Your task to perform on an android device: change keyboard looks Image 0: 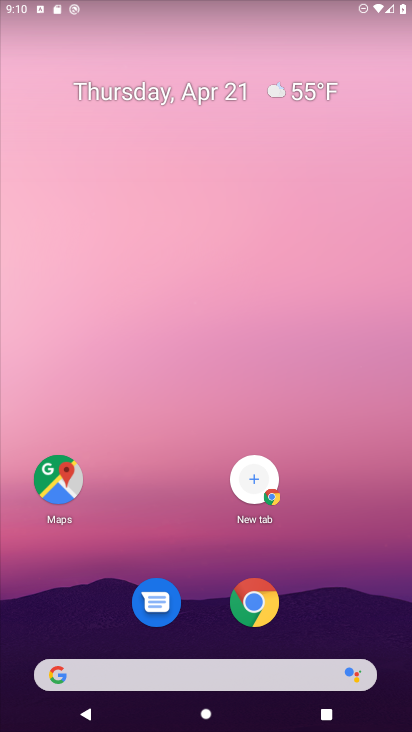
Step 0: drag from (197, 631) to (131, 223)
Your task to perform on an android device: change keyboard looks Image 1: 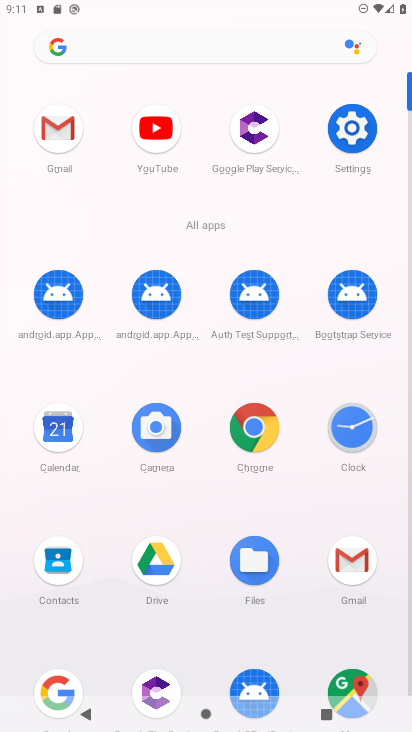
Step 1: click (381, 136)
Your task to perform on an android device: change keyboard looks Image 2: 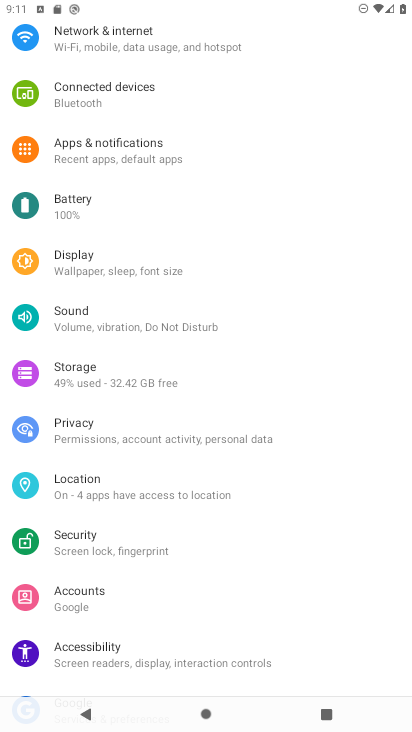
Step 2: drag from (169, 582) to (162, 124)
Your task to perform on an android device: change keyboard looks Image 3: 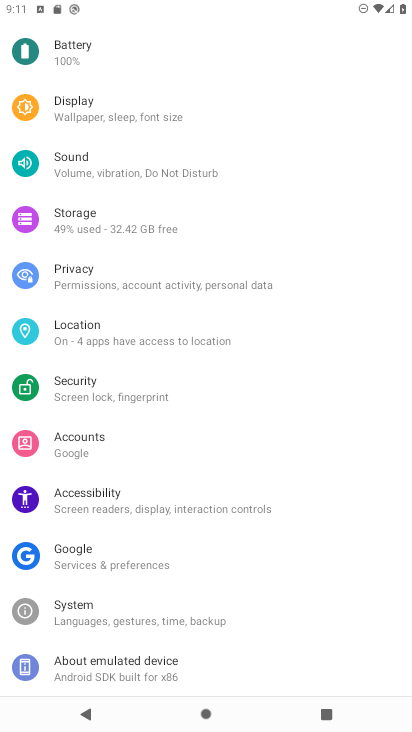
Step 3: click (93, 625)
Your task to perform on an android device: change keyboard looks Image 4: 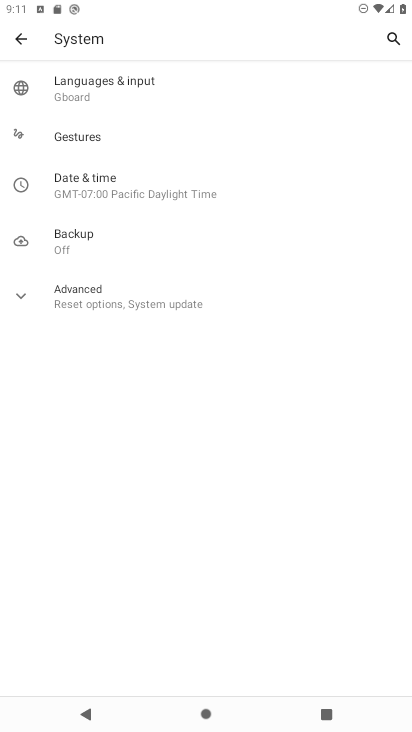
Step 4: click (170, 112)
Your task to perform on an android device: change keyboard looks Image 5: 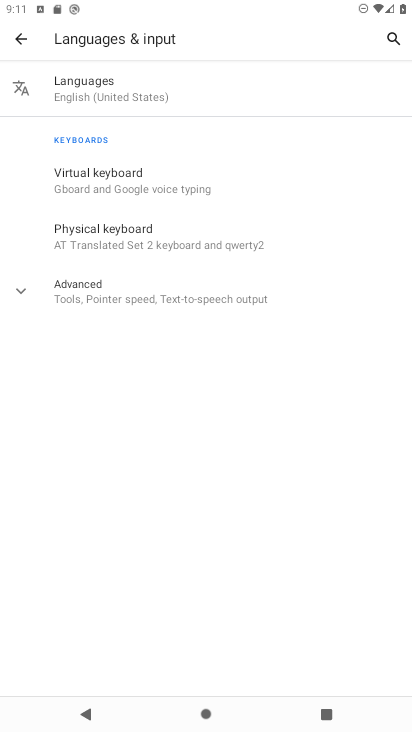
Step 5: click (178, 234)
Your task to perform on an android device: change keyboard looks Image 6: 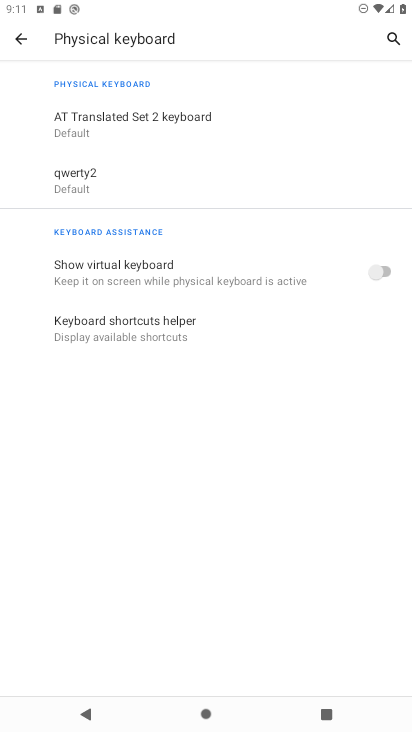
Step 6: click (36, 40)
Your task to perform on an android device: change keyboard looks Image 7: 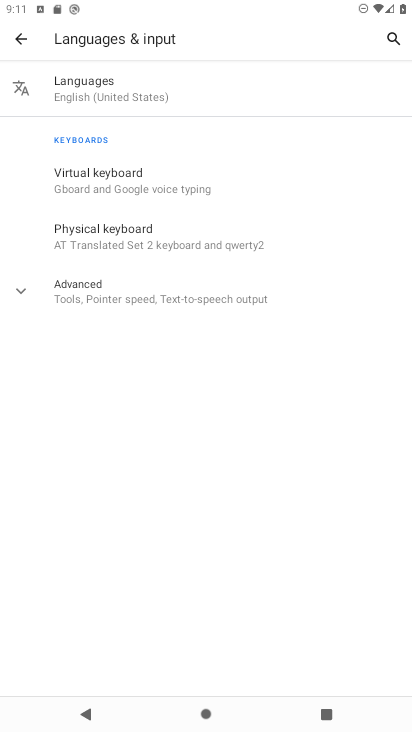
Step 7: click (207, 114)
Your task to perform on an android device: change keyboard looks Image 8: 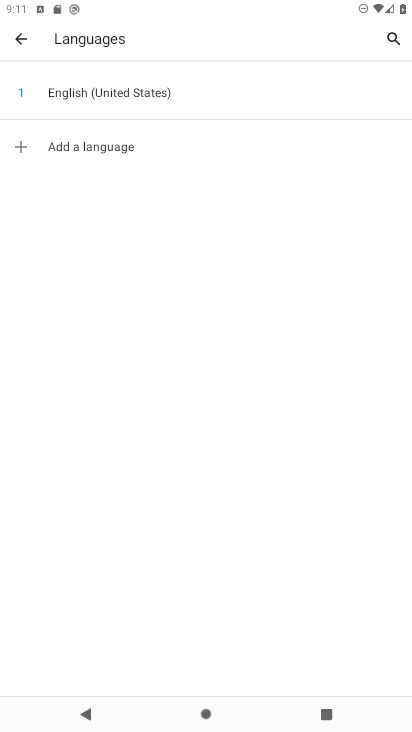
Step 8: click (11, 40)
Your task to perform on an android device: change keyboard looks Image 9: 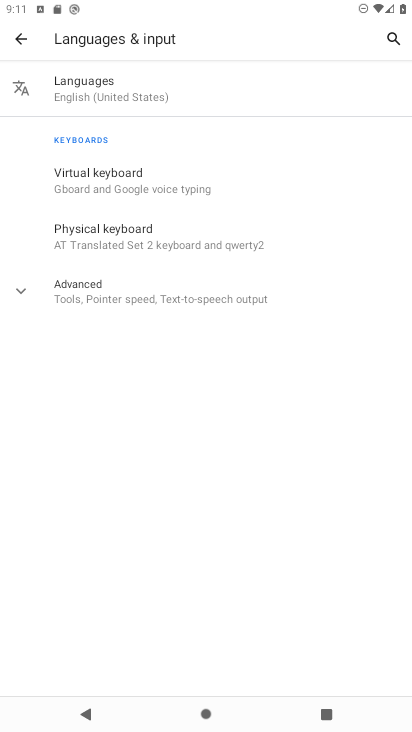
Step 9: click (110, 182)
Your task to perform on an android device: change keyboard looks Image 10: 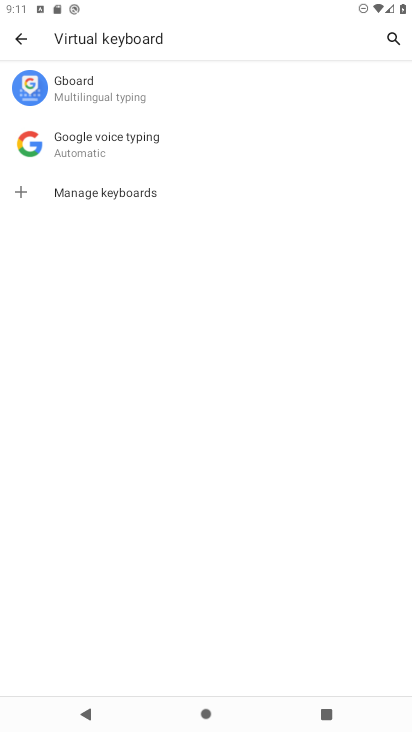
Step 10: click (84, 93)
Your task to perform on an android device: change keyboard looks Image 11: 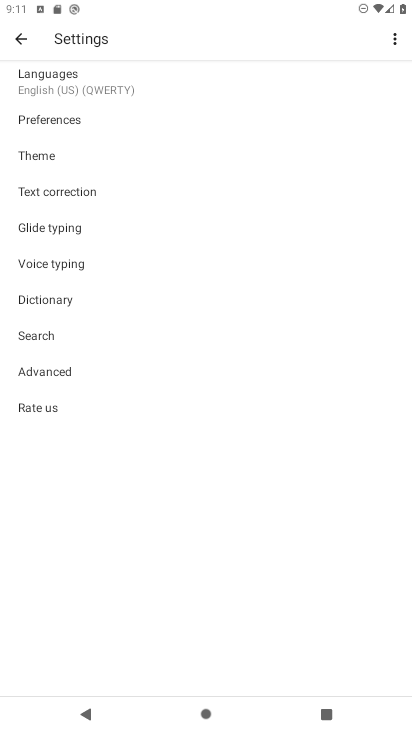
Step 11: click (118, 302)
Your task to perform on an android device: change keyboard looks Image 12: 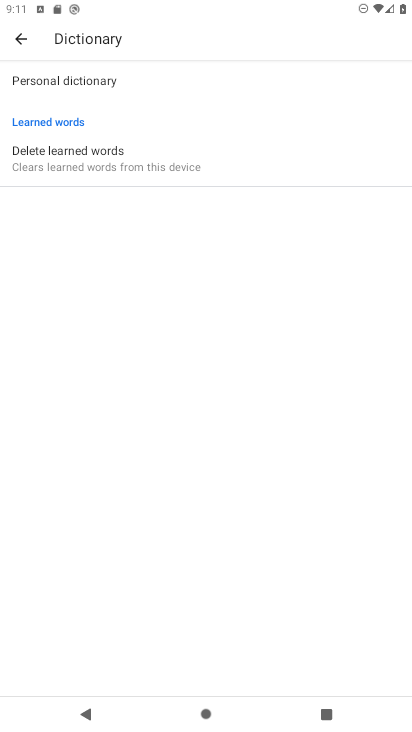
Step 12: click (13, 50)
Your task to perform on an android device: change keyboard looks Image 13: 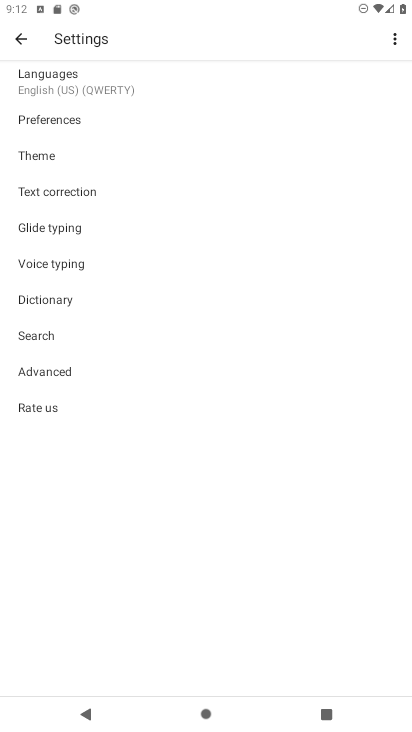
Step 13: click (45, 172)
Your task to perform on an android device: change keyboard looks Image 14: 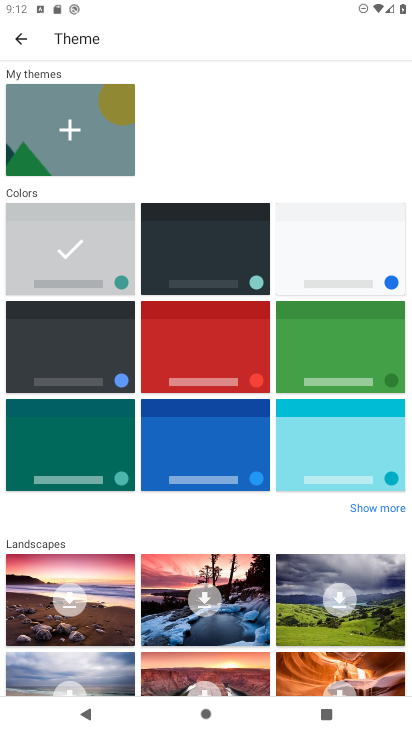
Step 14: click (210, 236)
Your task to perform on an android device: change keyboard looks Image 15: 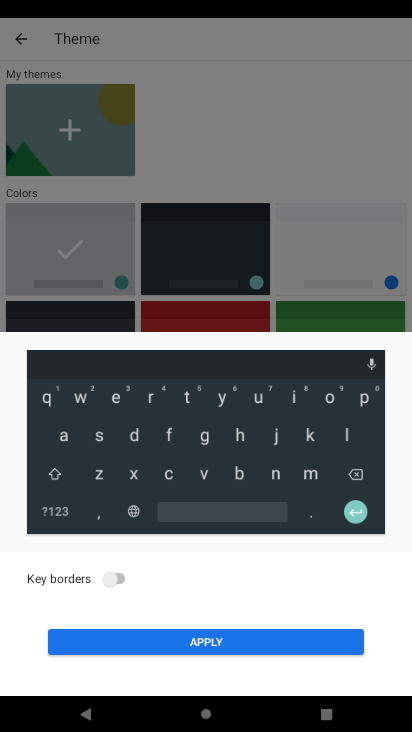
Step 15: click (256, 641)
Your task to perform on an android device: change keyboard looks Image 16: 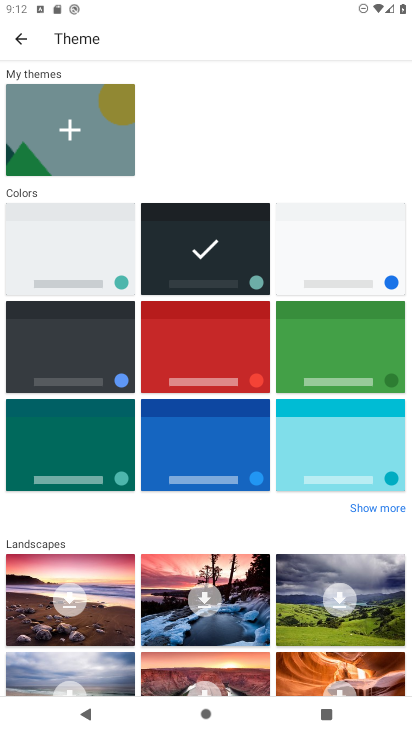
Step 16: task complete